Your task to perform on an android device: check storage Image 0: 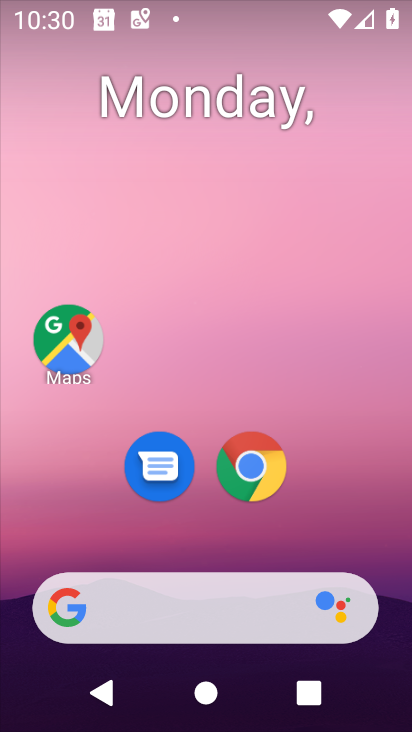
Step 0: drag from (390, 636) to (196, 70)
Your task to perform on an android device: check storage Image 1: 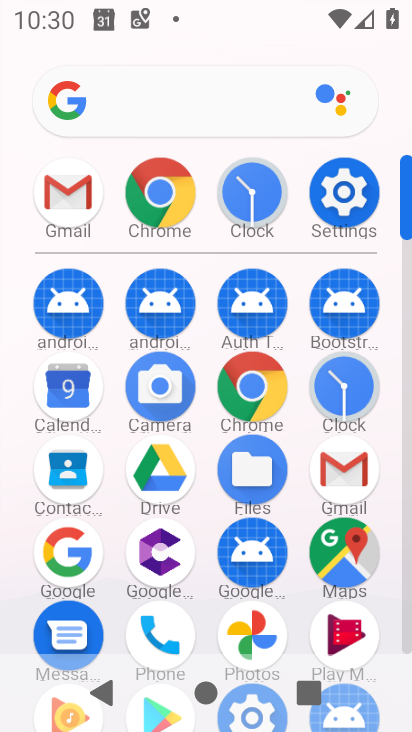
Step 1: drag from (287, 590) to (243, 220)
Your task to perform on an android device: check storage Image 2: 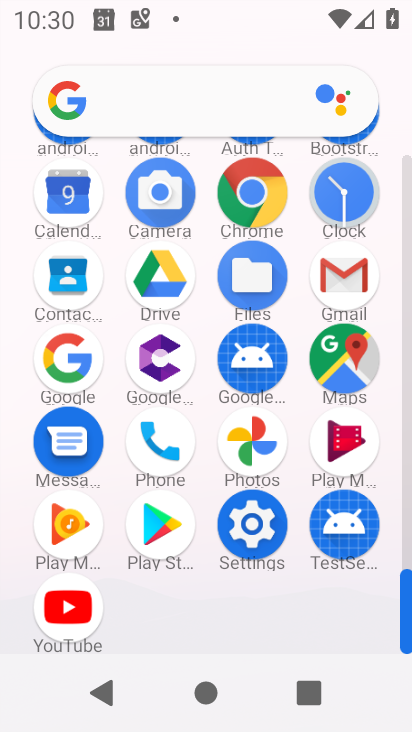
Step 2: drag from (292, 480) to (243, 211)
Your task to perform on an android device: check storage Image 3: 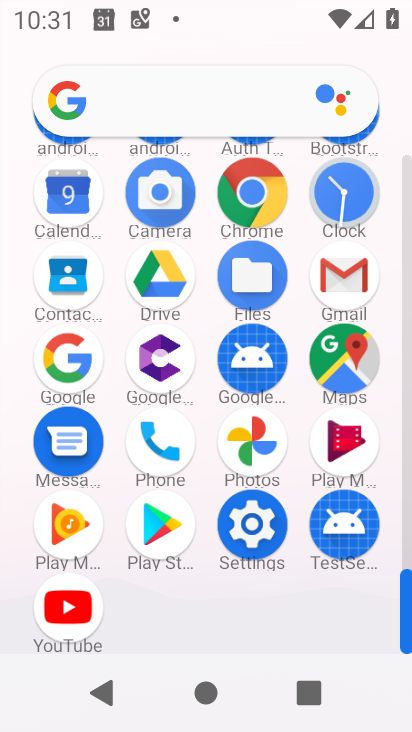
Step 3: click (348, 211)
Your task to perform on an android device: check storage Image 4: 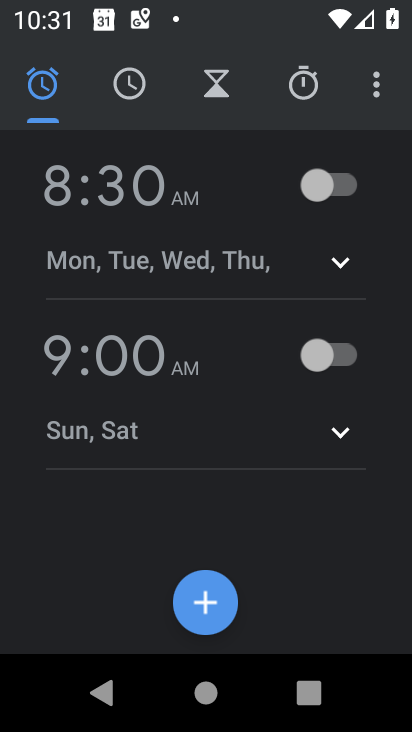
Step 4: press back button
Your task to perform on an android device: check storage Image 5: 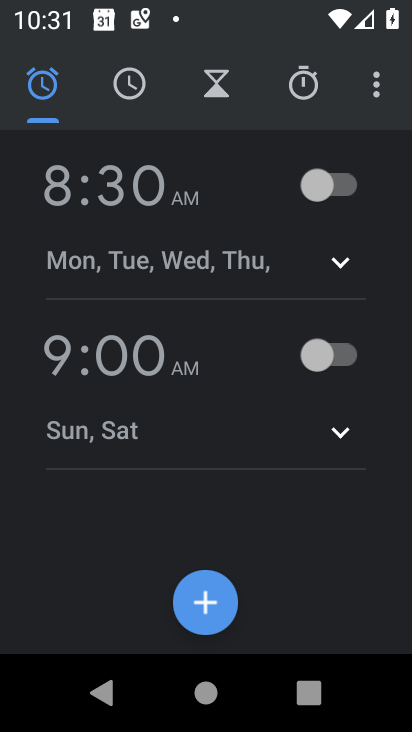
Step 5: press back button
Your task to perform on an android device: check storage Image 6: 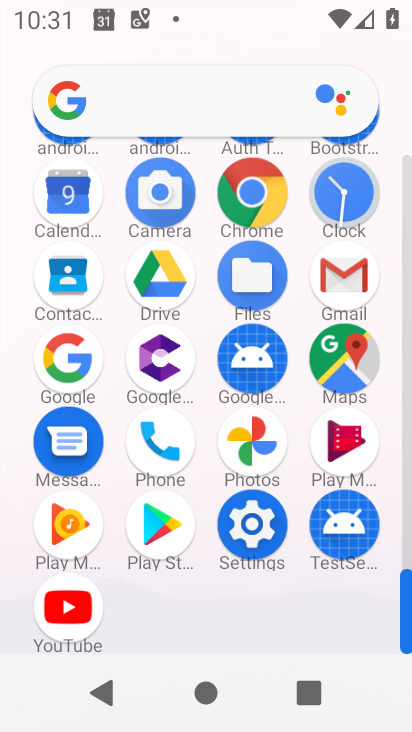
Step 6: press back button
Your task to perform on an android device: check storage Image 7: 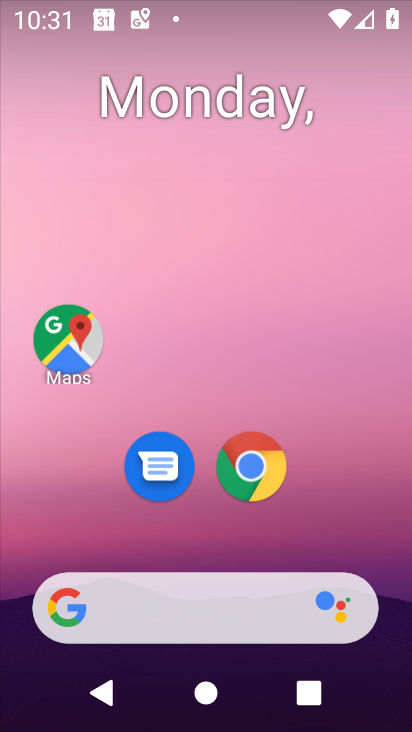
Step 7: drag from (360, 530) to (157, 43)
Your task to perform on an android device: check storage Image 8: 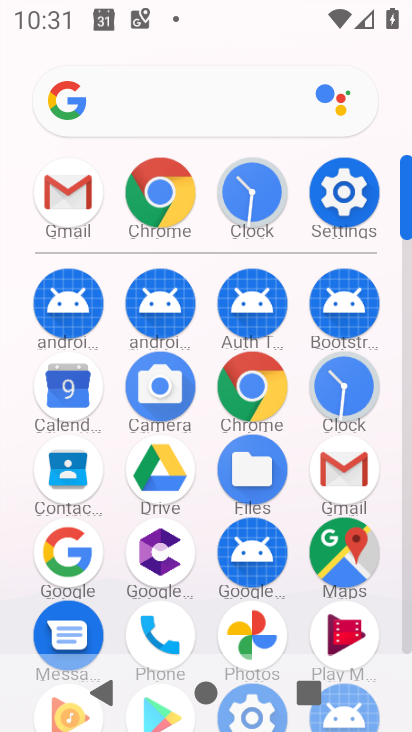
Step 8: click (346, 203)
Your task to perform on an android device: check storage Image 9: 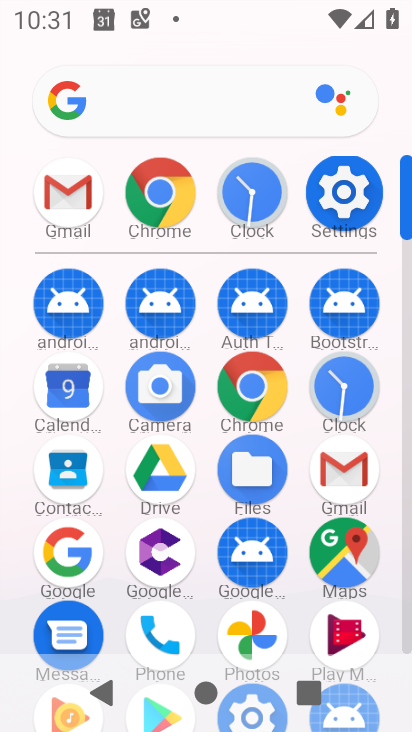
Step 9: click (347, 202)
Your task to perform on an android device: check storage Image 10: 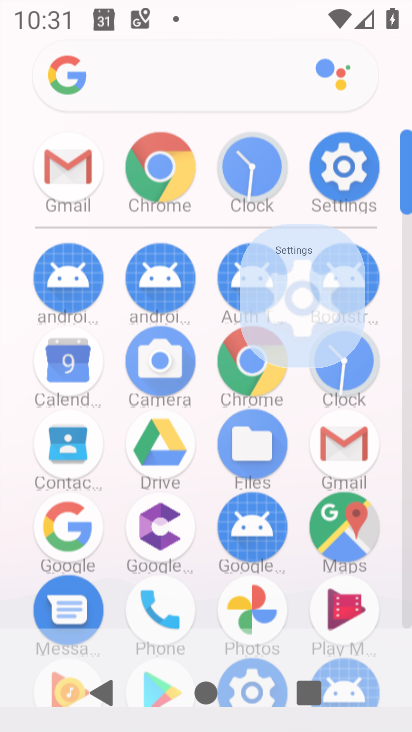
Step 10: click (348, 203)
Your task to perform on an android device: check storage Image 11: 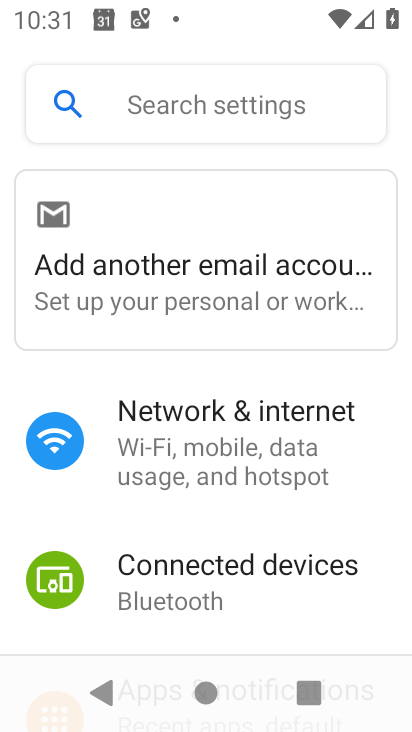
Step 11: drag from (208, 558) to (135, 162)
Your task to perform on an android device: check storage Image 12: 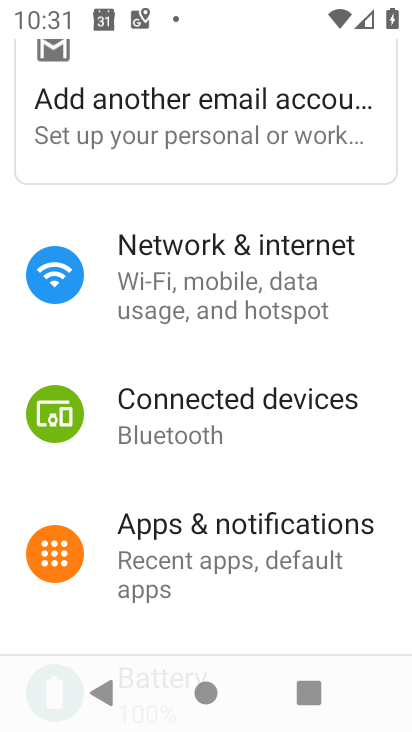
Step 12: drag from (197, 412) to (199, 173)
Your task to perform on an android device: check storage Image 13: 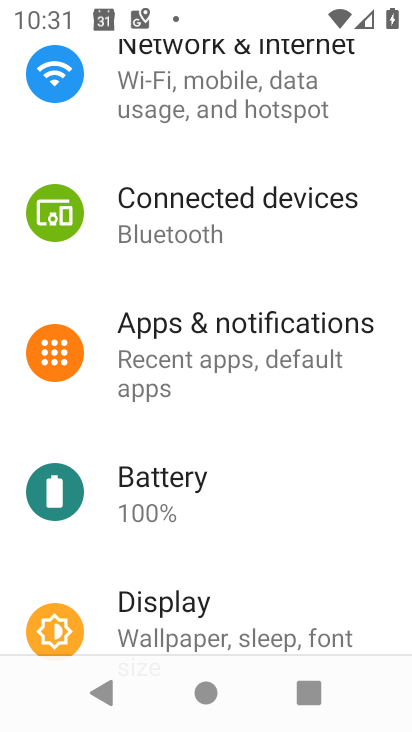
Step 13: drag from (221, 475) to (211, 133)
Your task to perform on an android device: check storage Image 14: 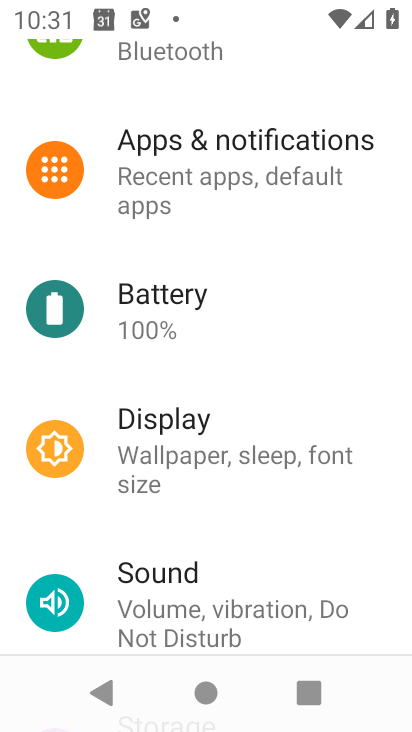
Step 14: drag from (228, 343) to (217, 103)
Your task to perform on an android device: check storage Image 15: 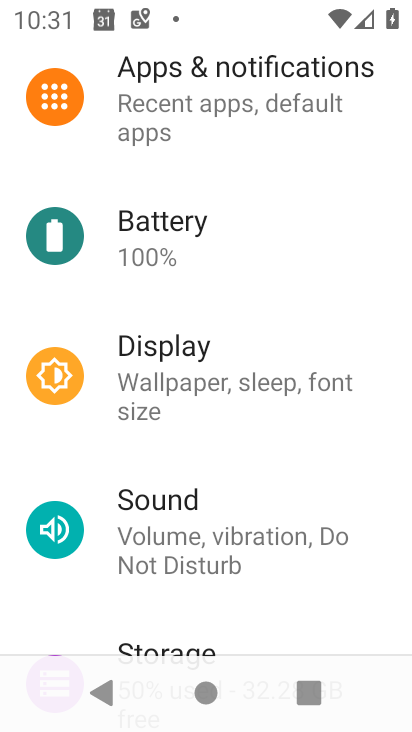
Step 15: drag from (186, 441) to (180, 58)
Your task to perform on an android device: check storage Image 16: 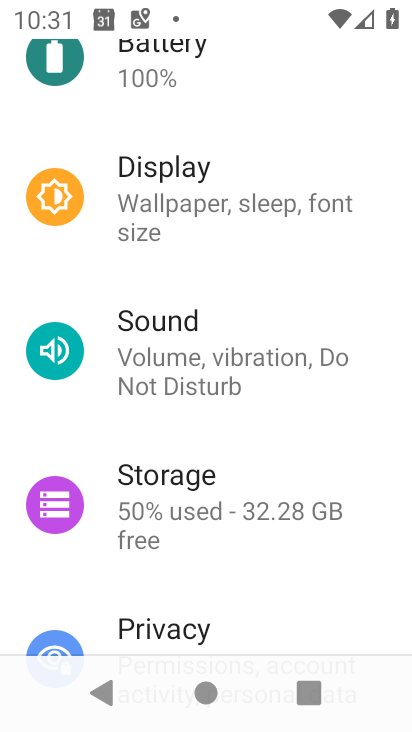
Step 16: drag from (195, 367) to (148, 220)
Your task to perform on an android device: check storage Image 17: 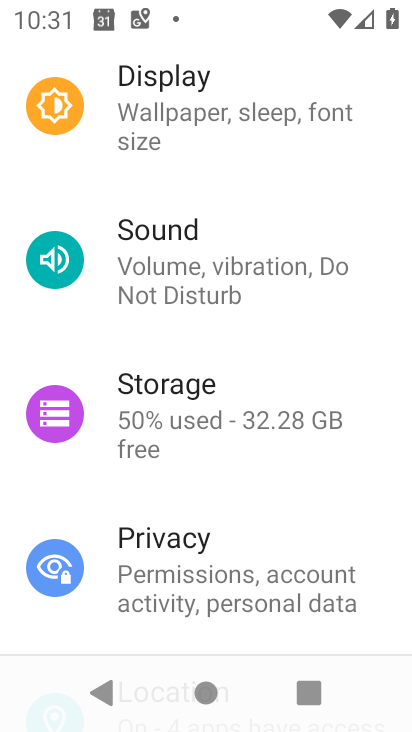
Step 17: click (149, 424)
Your task to perform on an android device: check storage Image 18: 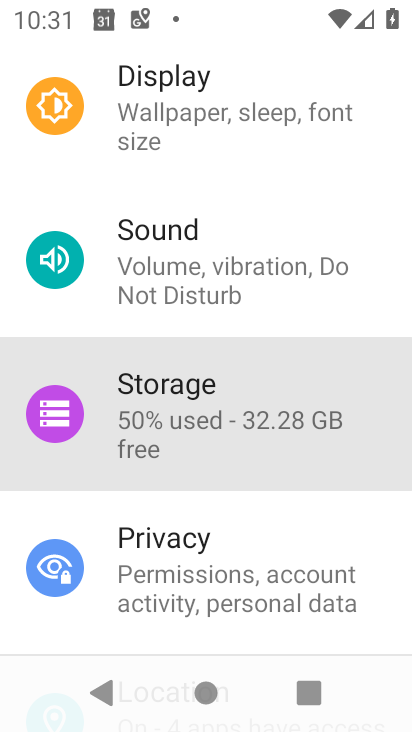
Step 18: click (149, 424)
Your task to perform on an android device: check storage Image 19: 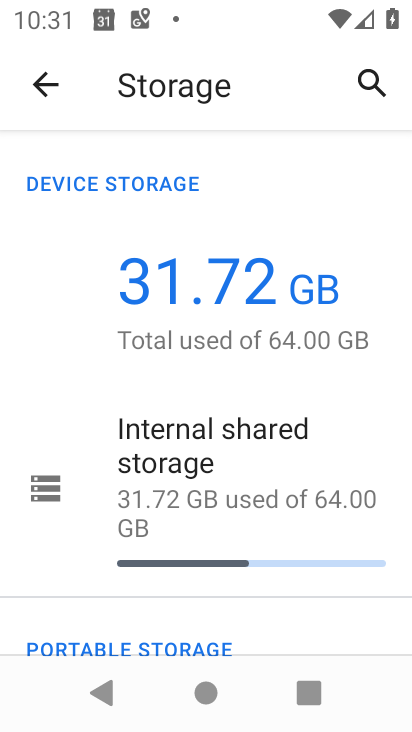
Step 19: task complete